Your task to perform on an android device: Open the web browser Image 0: 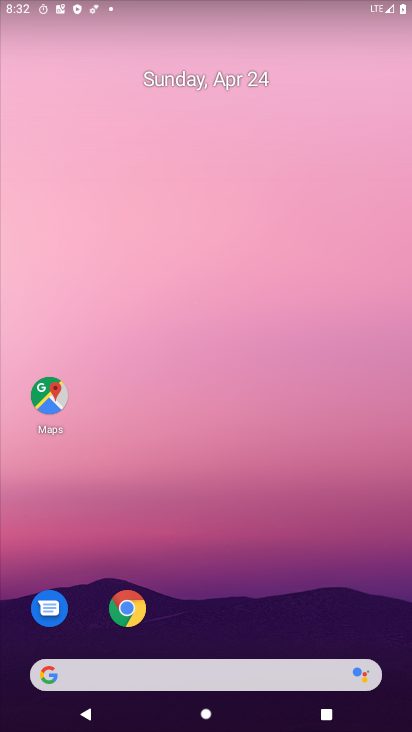
Step 0: click (298, 673)
Your task to perform on an android device: Open the web browser Image 1: 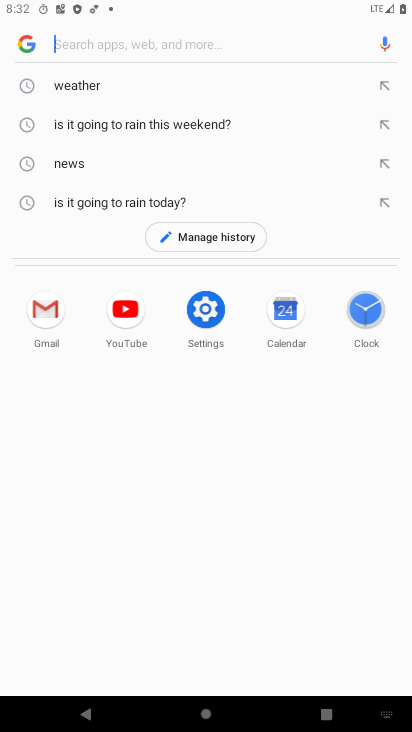
Step 1: task complete